Your task to perform on an android device: toggle sleep mode Image 0: 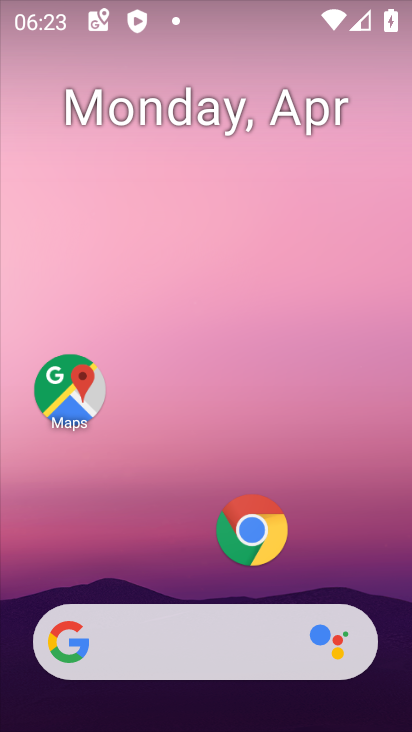
Step 0: drag from (180, 579) to (206, 125)
Your task to perform on an android device: toggle sleep mode Image 1: 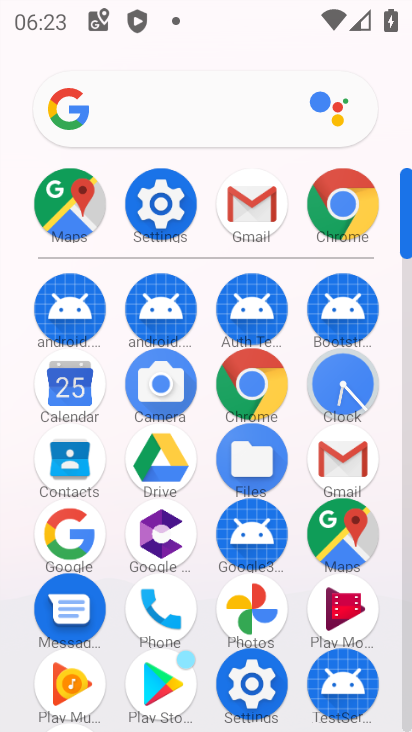
Step 1: click (250, 677)
Your task to perform on an android device: toggle sleep mode Image 2: 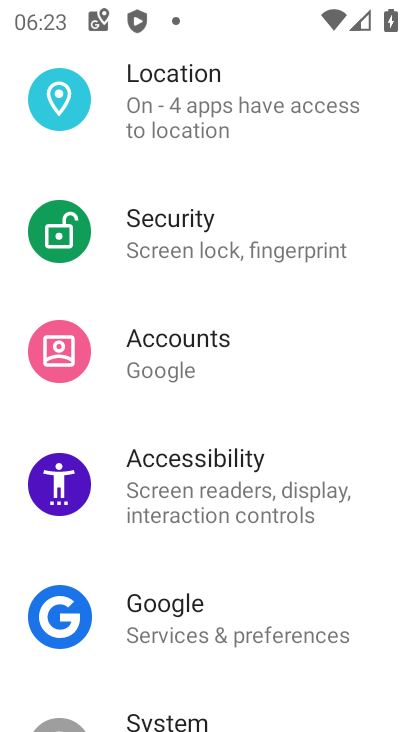
Step 2: drag from (196, 139) to (194, 730)
Your task to perform on an android device: toggle sleep mode Image 3: 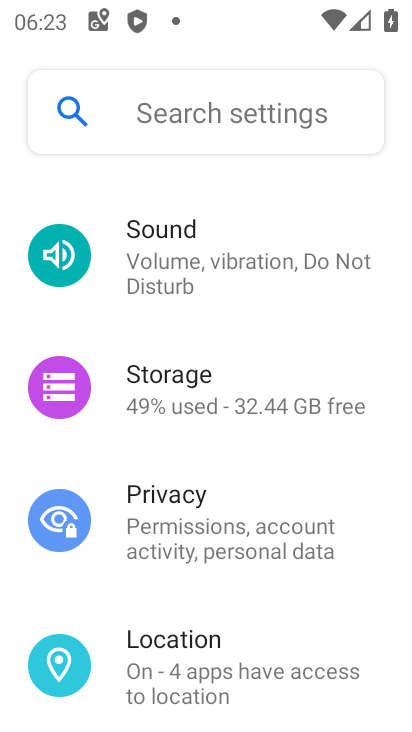
Step 3: drag from (114, 221) to (105, 729)
Your task to perform on an android device: toggle sleep mode Image 4: 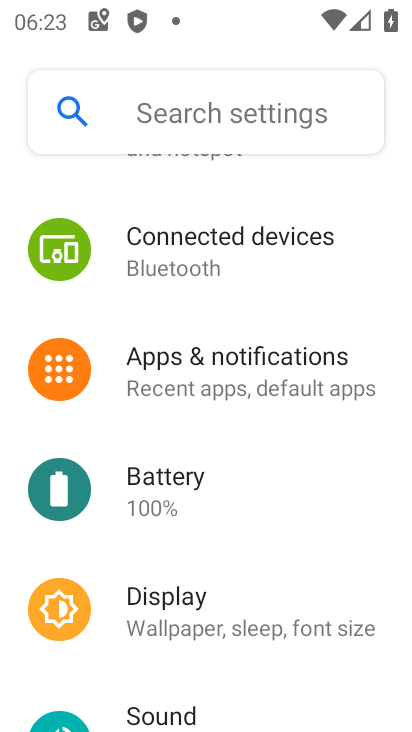
Step 4: click (112, 602)
Your task to perform on an android device: toggle sleep mode Image 5: 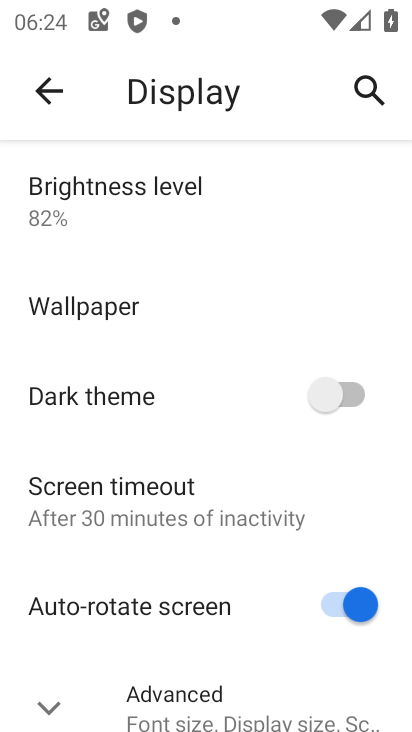
Step 5: click (71, 705)
Your task to perform on an android device: toggle sleep mode Image 6: 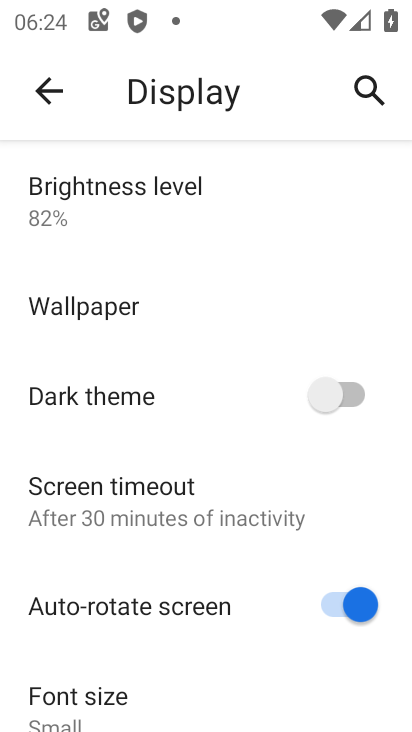
Step 6: click (175, 675)
Your task to perform on an android device: toggle sleep mode Image 7: 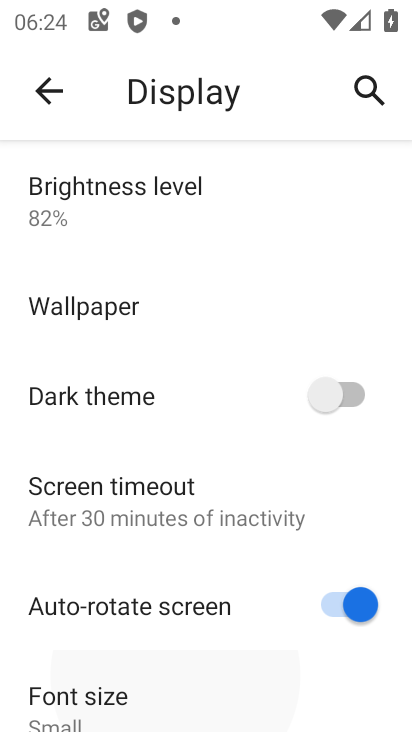
Step 7: task complete